Your task to perform on an android device: Go to internet settings Image 0: 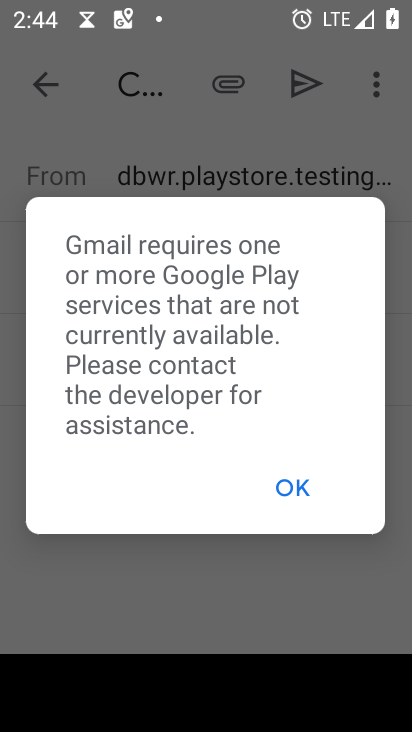
Step 0: press back button
Your task to perform on an android device: Go to internet settings Image 1: 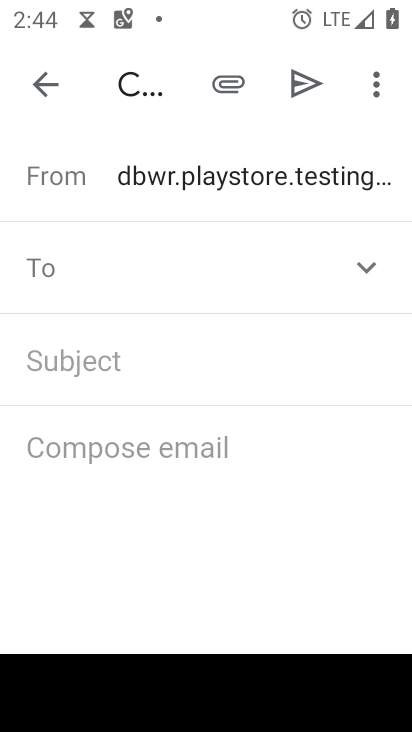
Step 1: press back button
Your task to perform on an android device: Go to internet settings Image 2: 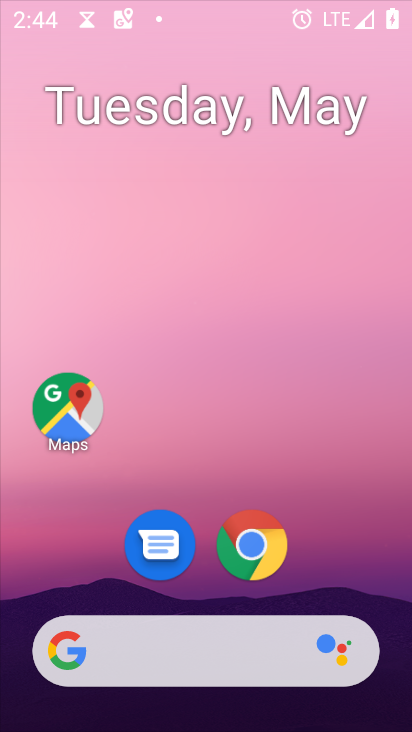
Step 2: press home button
Your task to perform on an android device: Go to internet settings Image 3: 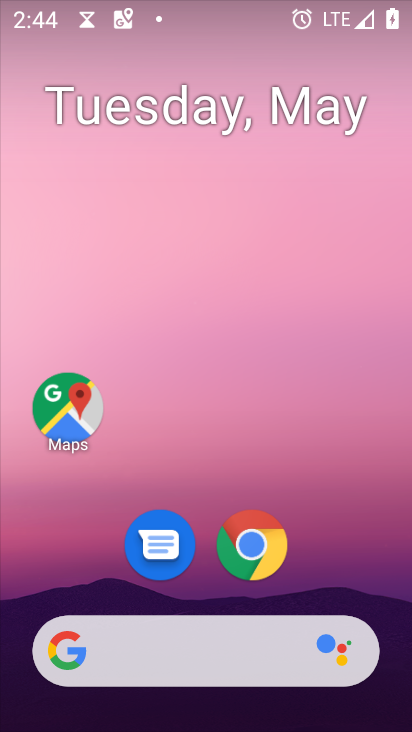
Step 3: drag from (323, 502) to (284, 17)
Your task to perform on an android device: Go to internet settings Image 4: 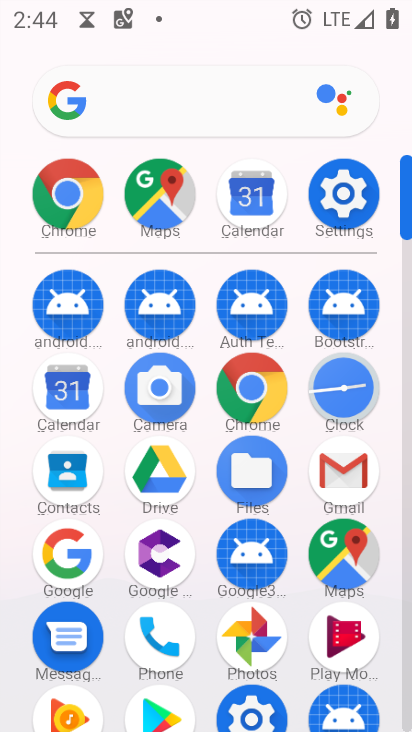
Step 4: click (342, 196)
Your task to perform on an android device: Go to internet settings Image 5: 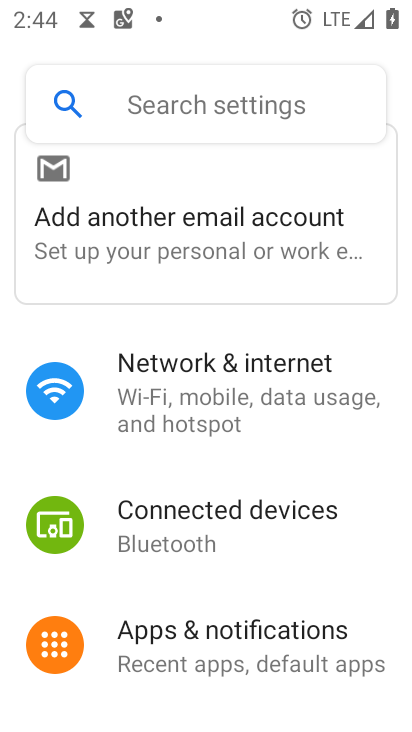
Step 5: click (207, 385)
Your task to perform on an android device: Go to internet settings Image 6: 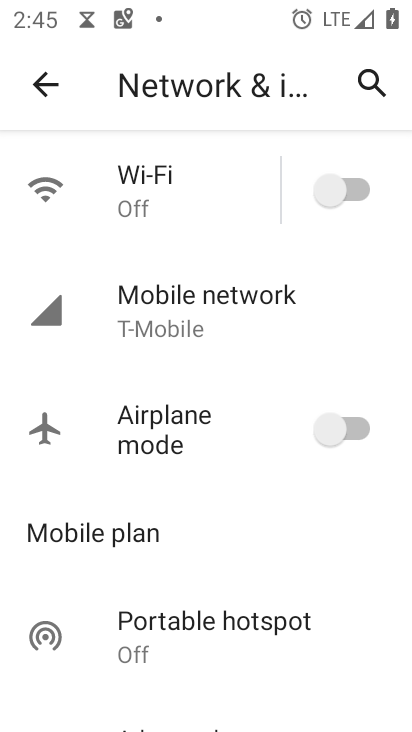
Step 6: drag from (222, 462) to (225, 172)
Your task to perform on an android device: Go to internet settings Image 7: 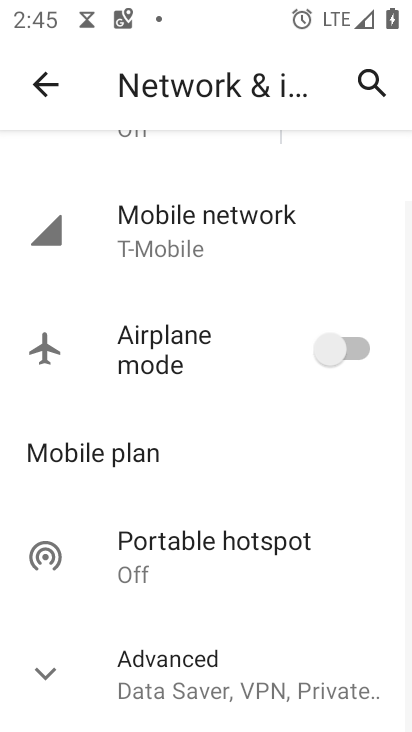
Step 7: drag from (213, 515) to (218, 152)
Your task to perform on an android device: Go to internet settings Image 8: 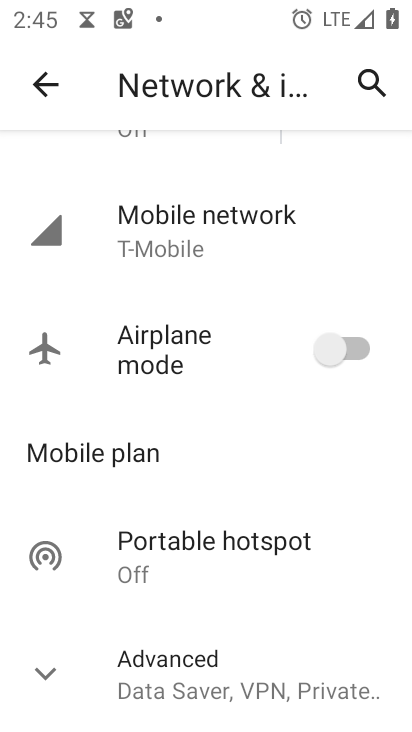
Step 8: click (64, 673)
Your task to perform on an android device: Go to internet settings Image 9: 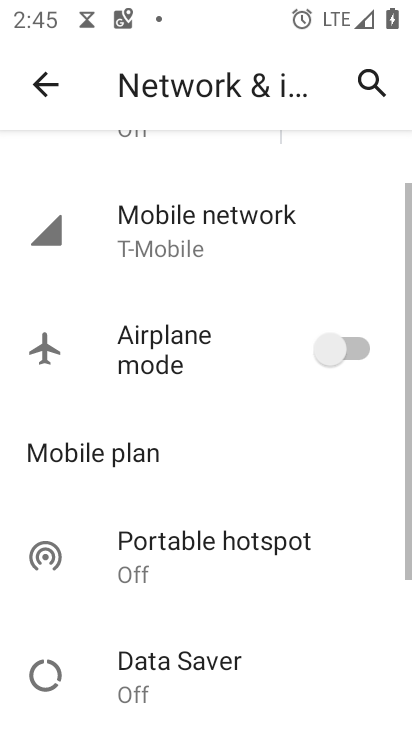
Step 9: task complete